Your task to perform on an android device: toggle pop-ups in chrome Image 0: 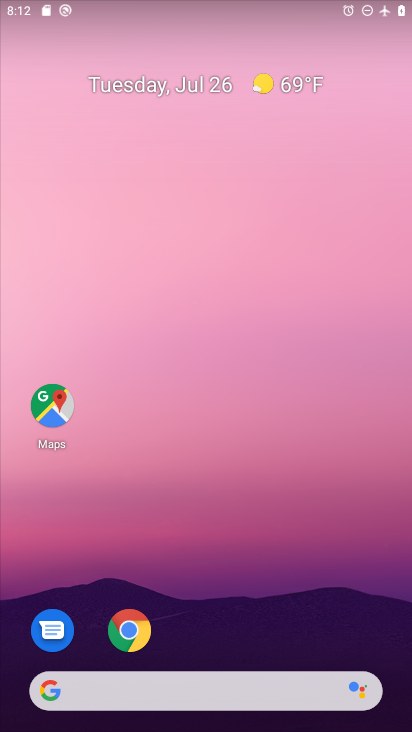
Step 0: drag from (203, 623) to (205, 94)
Your task to perform on an android device: toggle pop-ups in chrome Image 1: 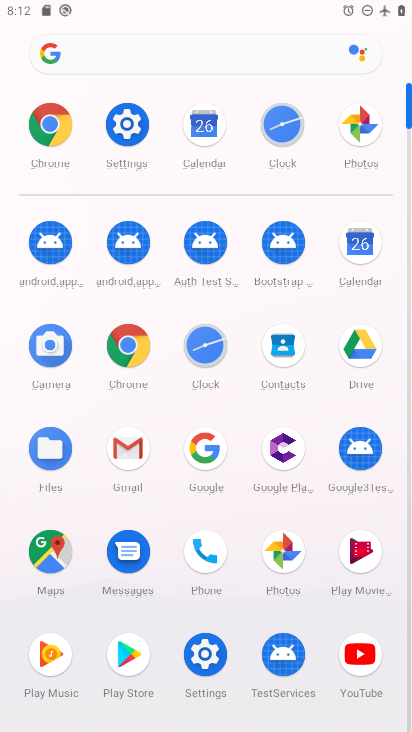
Step 1: click (129, 354)
Your task to perform on an android device: toggle pop-ups in chrome Image 2: 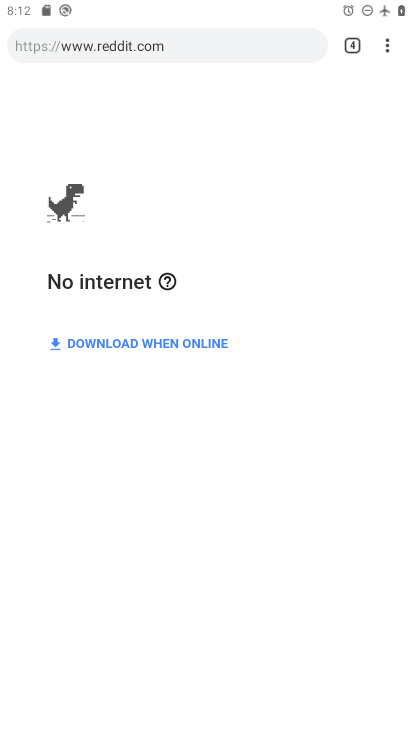
Step 2: click (384, 45)
Your task to perform on an android device: toggle pop-ups in chrome Image 3: 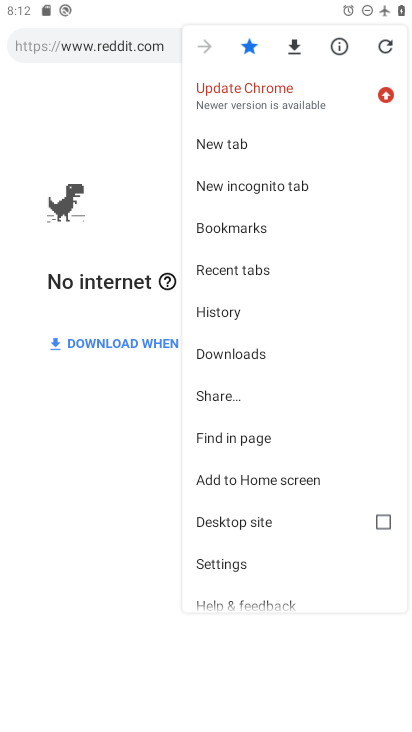
Step 3: click (265, 558)
Your task to perform on an android device: toggle pop-ups in chrome Image 4: 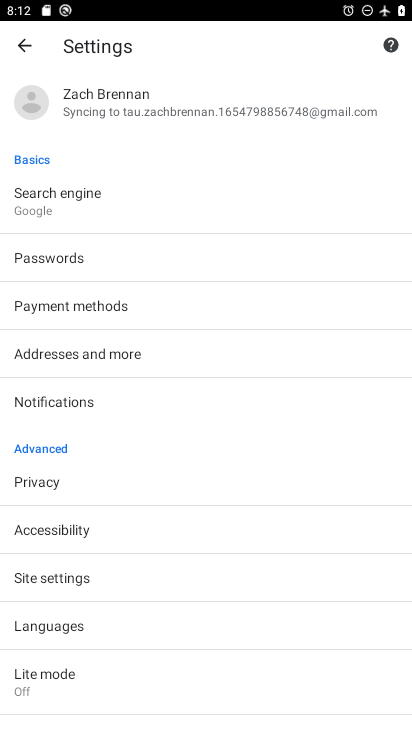
Step 4: click (105, 581)
Your task to perform on an android device: toggle pop-ups in chrome Image 5: 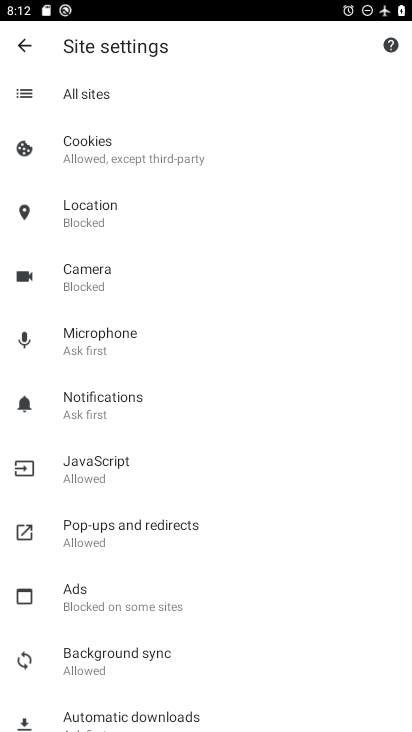
Step 5: click (207, 531)
Your task to perform on an android device: toggle pop-ups in chrome Image 6: 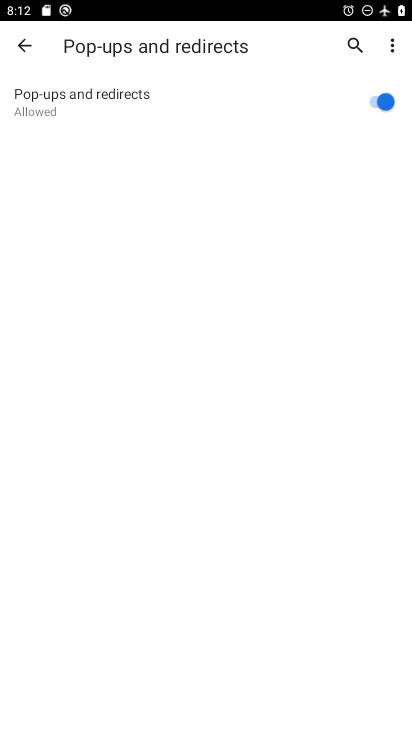
Step 6: click (392, 102)
Your task to perform on an android device: toggle pop-ups in chrome Image 7: 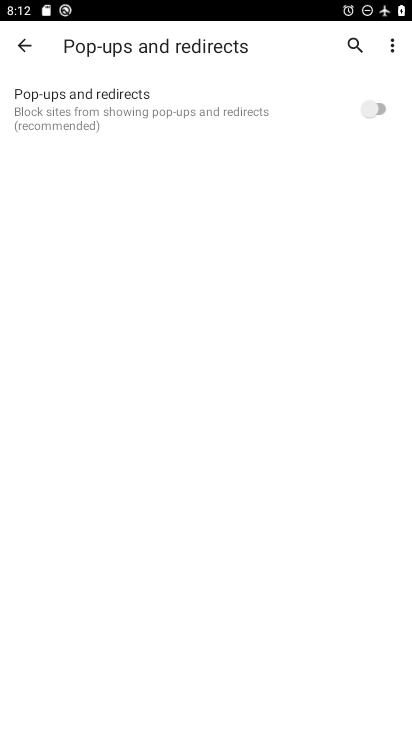
Step 7: task complete